Your task to perform on an android device: Go to CNN.com Image 0: 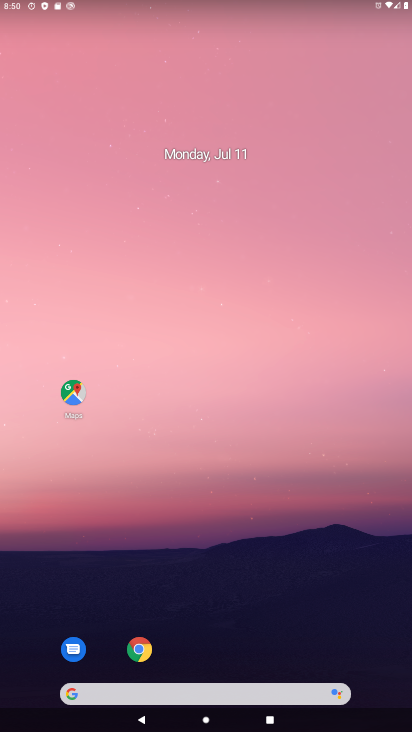
Step 0: click (141, 648)
Your task to perform on an android device: Go to CNN.com Image 1: 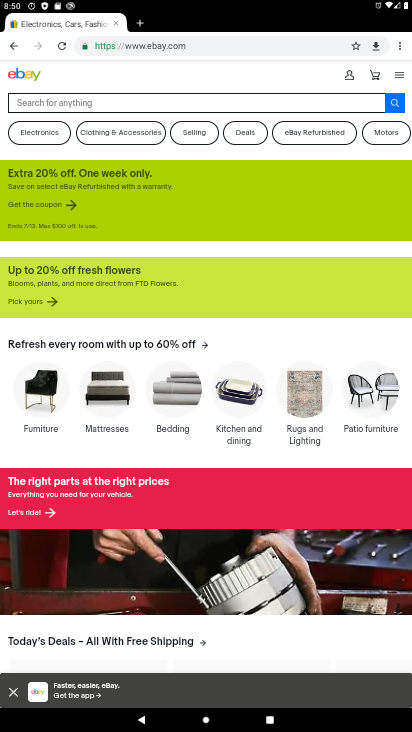
Step 1: click (272, 47)
Your task to perform on an android device: Go to CNN.com Image 2: 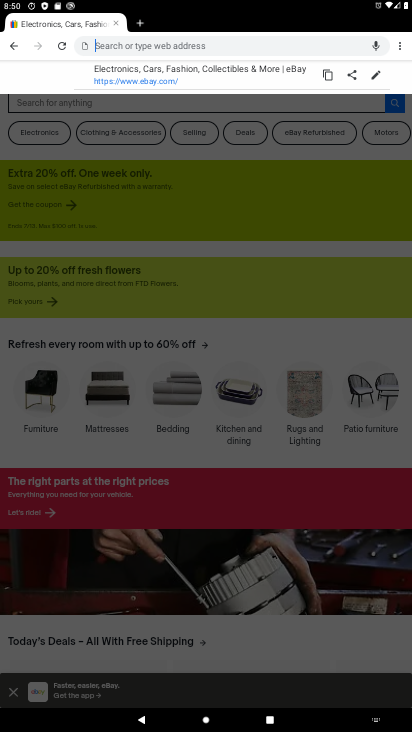
Step 2: type "CNN.com"
Your task to perform on an android device: Go to CNN.com Image 3: 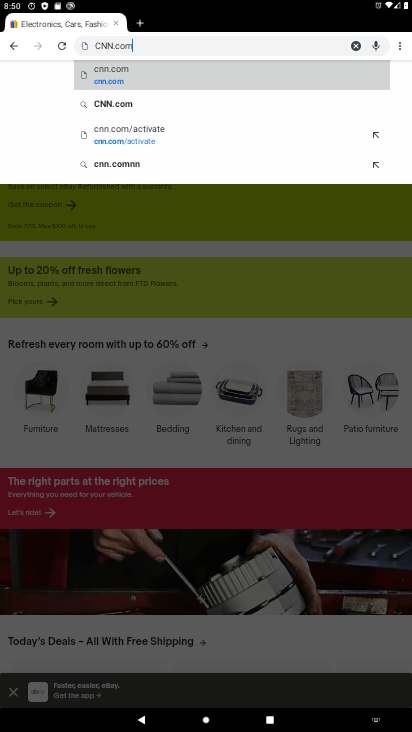
Step 3: click (127, 107)
Your task to perform on an android device: Go to CNN.com Image 4: 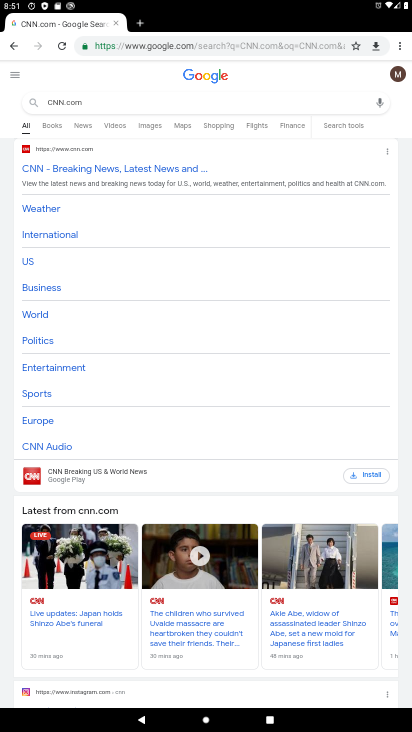
Step 4: click (114, 173)
Your task to perform on an android device: Go to CNN.com Image 5: 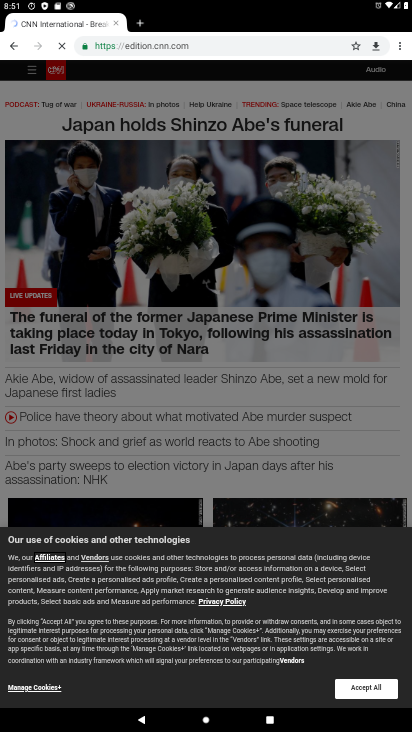
Step 5: task complete